Your task to perform on an android device: Go to eBay Image 0: 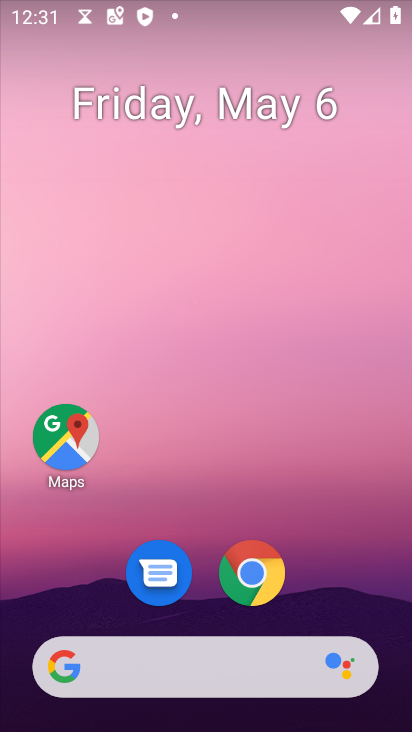
Step 0: drag from (306, 579) to (351, 217)
Your task to perform on an android device: Go to eBay Image 1: 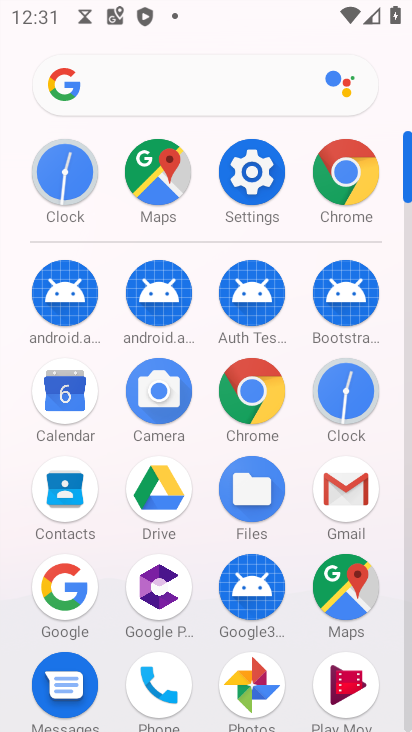
Step 1: click (351, 174)
Your task to perform on an android device: Go to eBay Image 2: 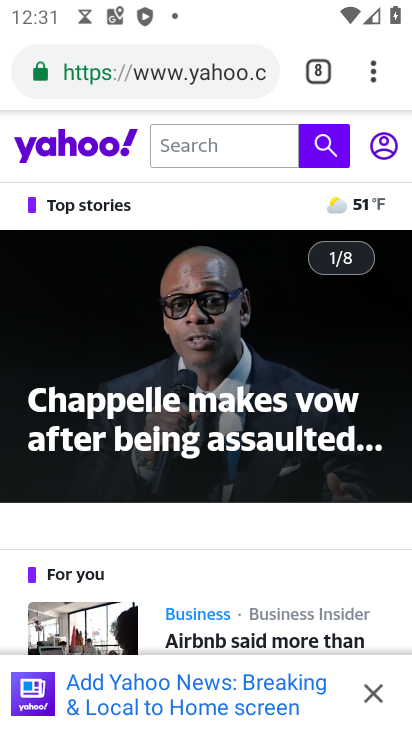
Step 2: click (362, 64)
Your task to perform on an android device: Go to eBay Image 3: 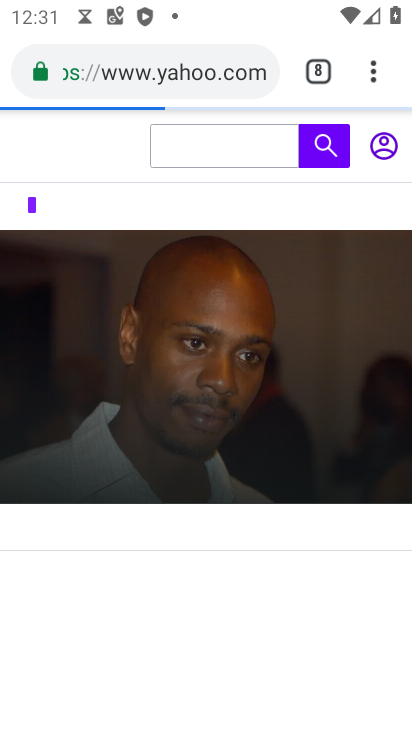
Step 3: click (353, 70)
Your task to perform on an android device: Go to eBay Image 4: 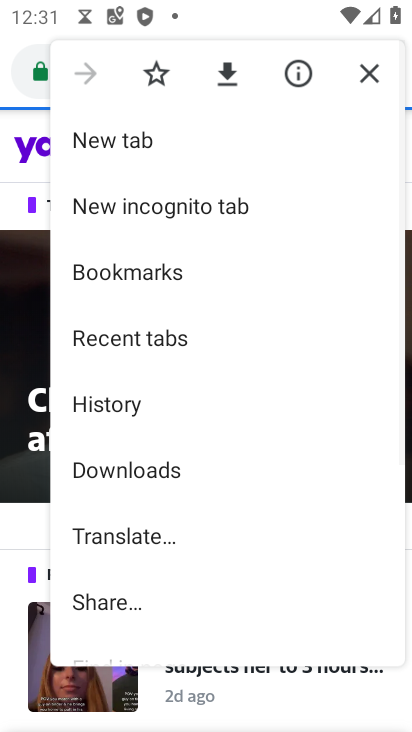
Step 4: click (140, 147)
Your task to perform on an android device: Go to eBay Image 5: 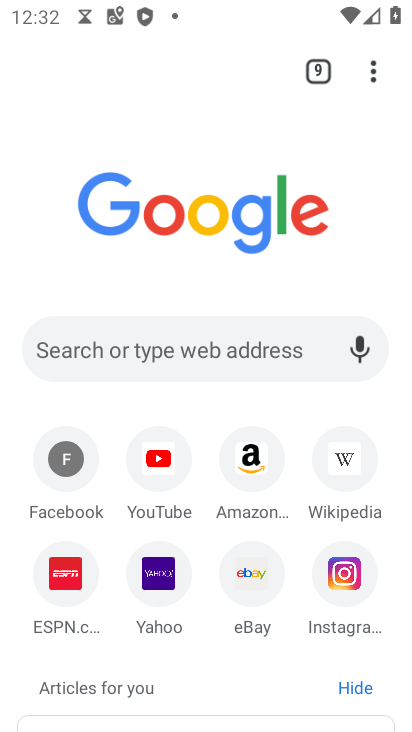
Step 5: click (269, 575)
Your task to perform on an android device: Go to eBay Image 6: 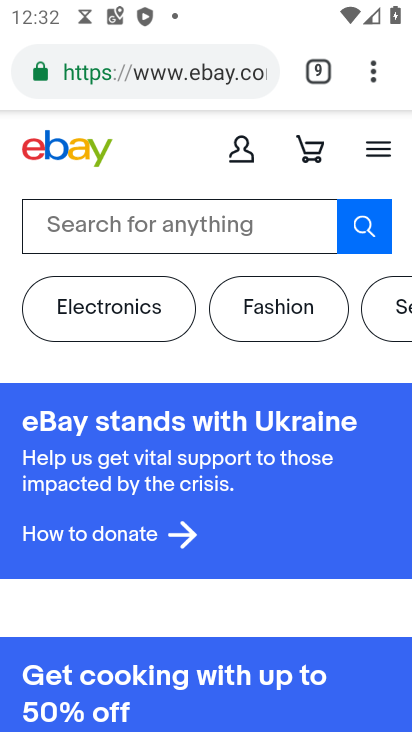
Step 6: task complete